Your task to perform on an android device: Search for Mexican restaurants on Maps Image 0: 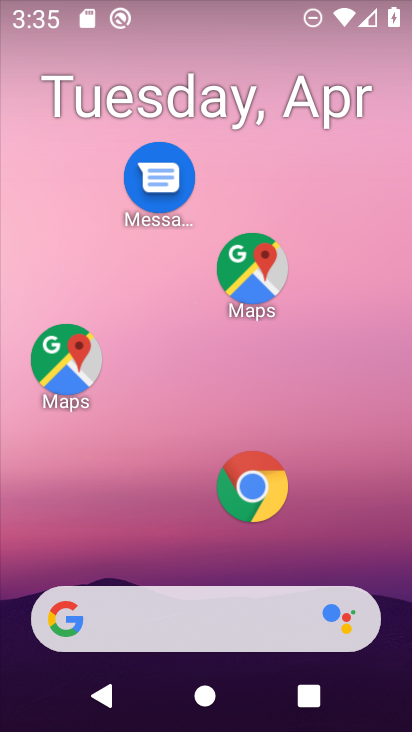
Step 0: click (53, 344)
Your task to perform on an android device: Search for Mexican restaurants on Maps Image 1: 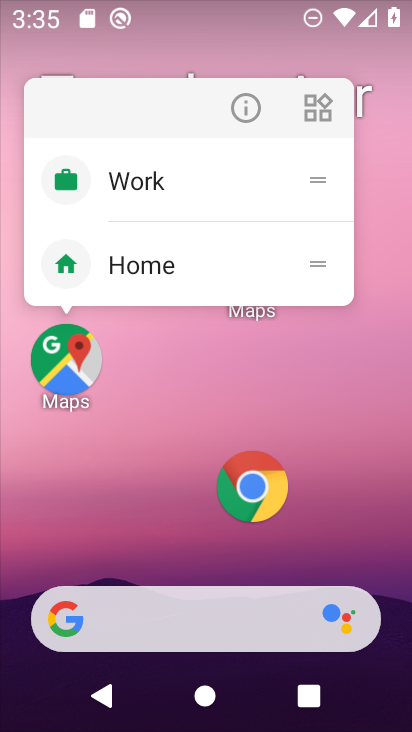
Step 1: click (259, 119)
Your task to perform on an android device: Search for Mexican restaurants on Maps Image 2: 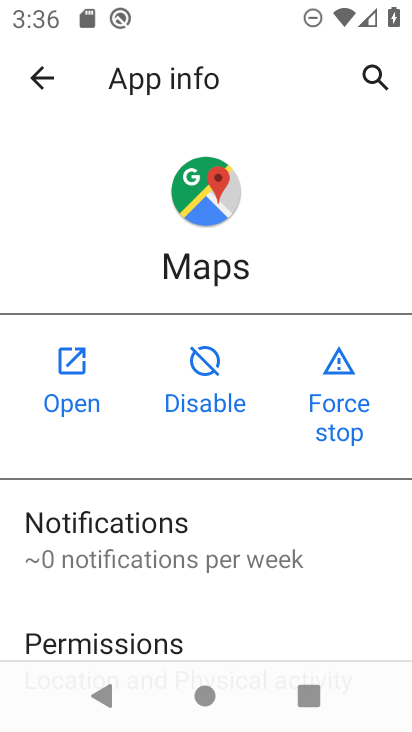
Step 2: click (90, 381)
Your task to perform on an android device: Search for Mexican restaurants on Maps Image 3: 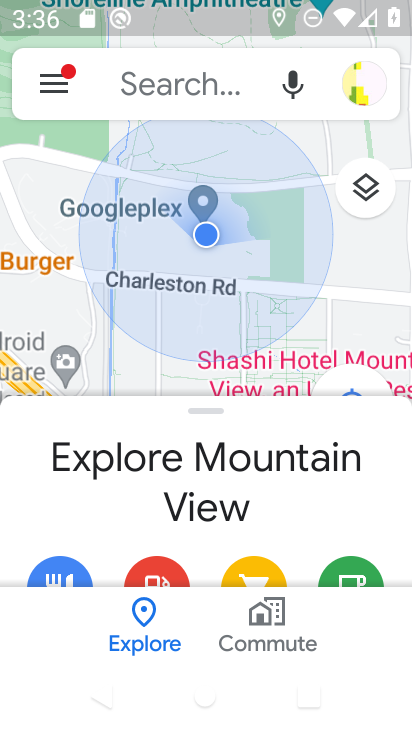
Step 3: click (172, 86)
Your task to perform on an android device: Search for Mexican restaurants on Maps Image 4: 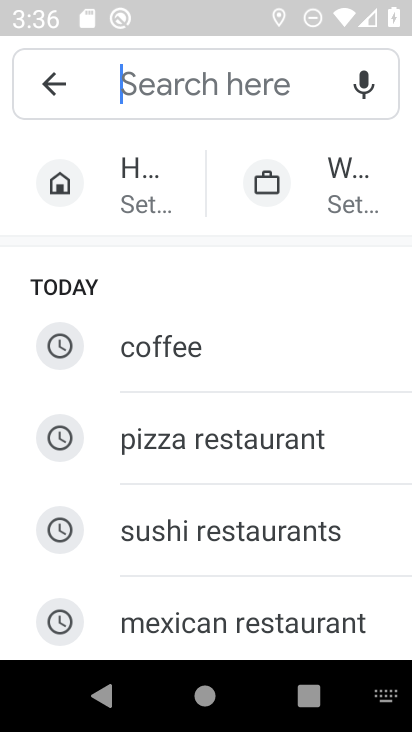
Step 4: click (238, 609)
Your task to perform on an android device: Search for Mexican restaurants on Maps Image 5: 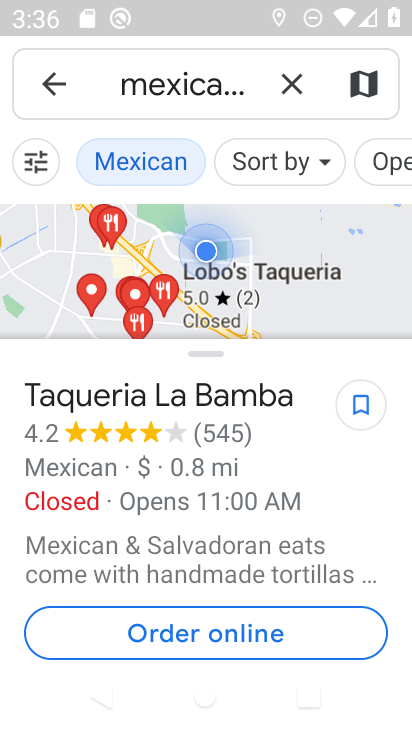
Step 5: task complete